Your task to perform on an android device: Open network settings Image 0: 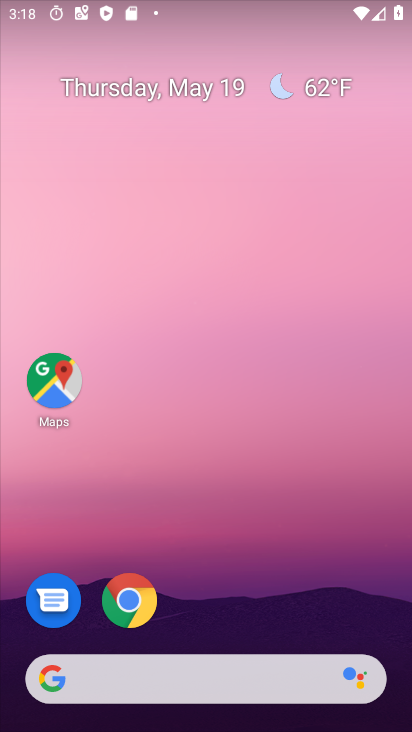
Step 0: press home button
Your task to perform on an android device: Open network settings Image 1: 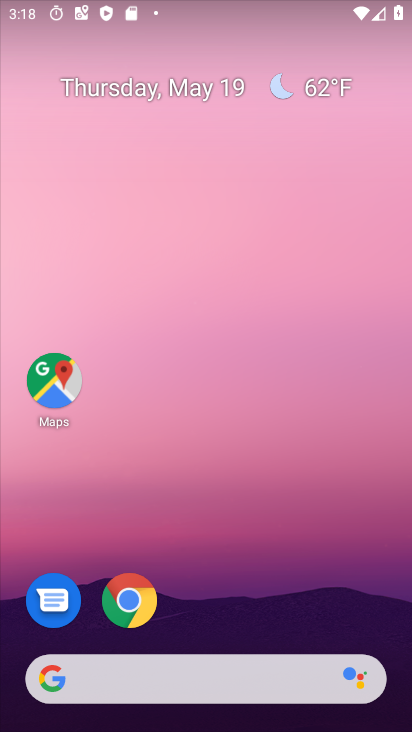
Step 1: press home button
Your task to perform on an android device: Open network settings Image 2: 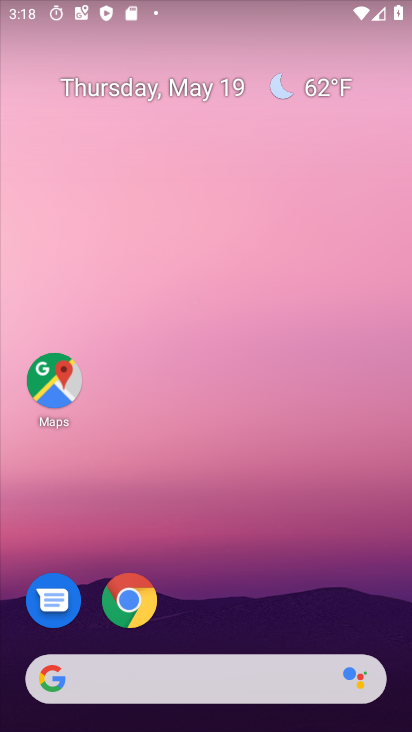
Step 2: drag from (69, 565) to (286, 40)
Your task to perform on an android device: Open network settings Image 3: 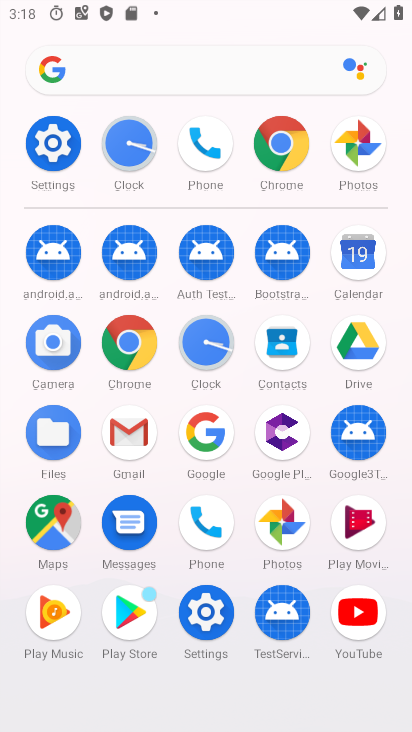
Step 3: click (65, 137)
Your task to perform on an android device: Open network settings Image 4: 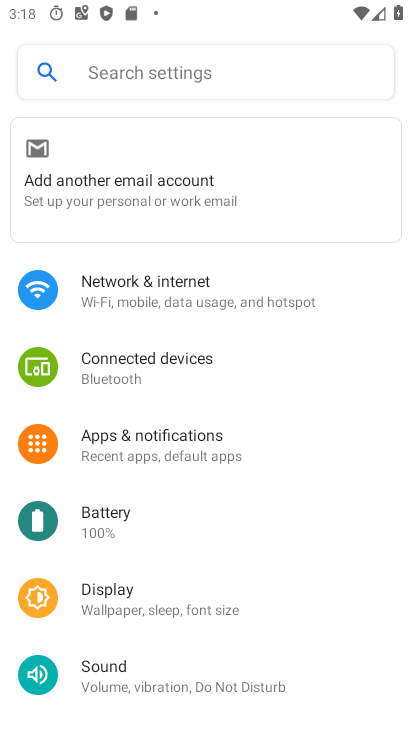
Step 4: click (175, 286)
Your task to perform on an android device: Open network settings Image 5: 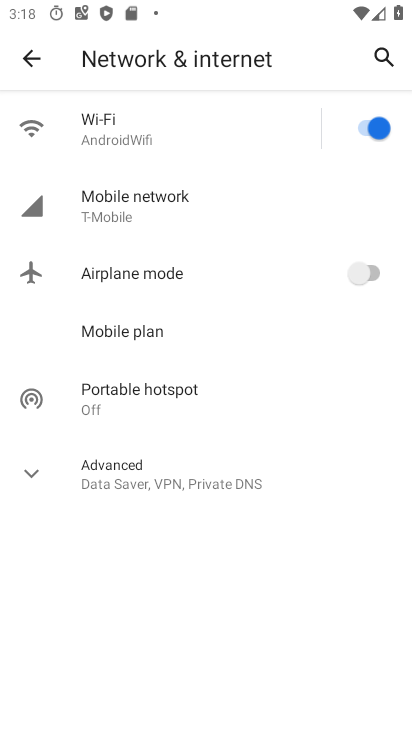
Step 5: click (221, 194)
Your task to perform on an android device: Open network settings Image 6: 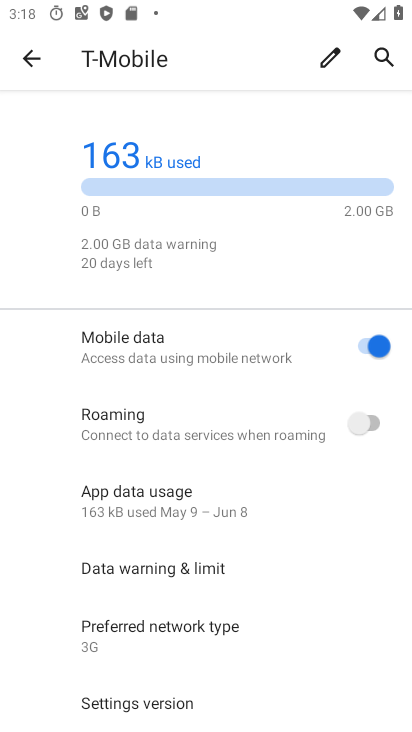
Step 6: task complete